Your task to perform on an android device: change notifications settings Image 0: 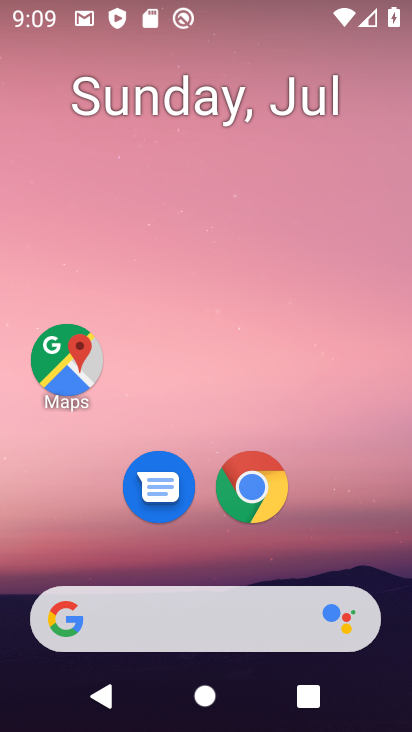
Step 0: drag from (179, 542) to (258, 4)
Your task to perform on an android device: change notifications settings Image 1: 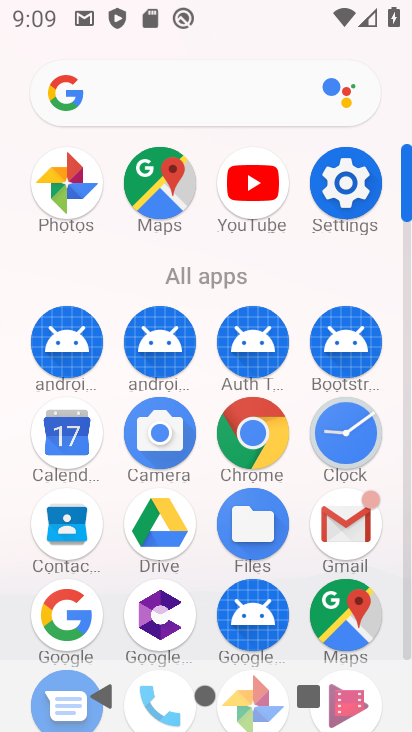
Step 1: click (347, 163)
Your task to perform on an android device: change notifications settings Image 2: 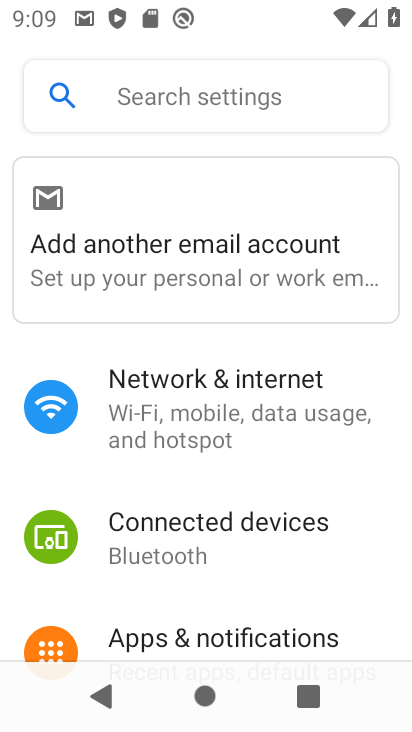
Step 2: drag from (240, 592) to (252, 213)
Your task to perform on an android device: change notifications settings Image 3: 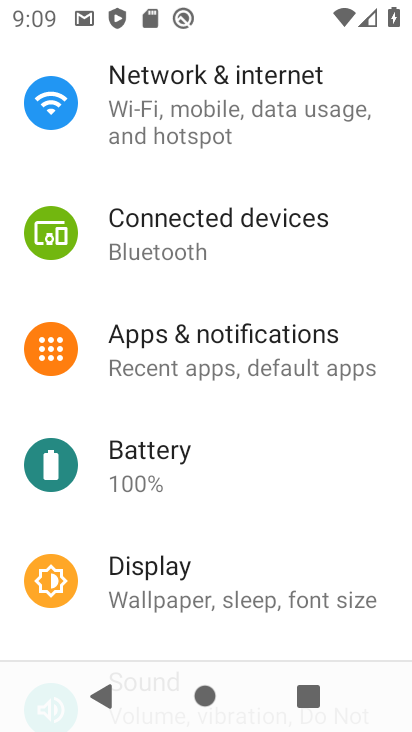
Step 3: click (254, 346)
Your task to perform on an android device: change notifications settings Image 4: 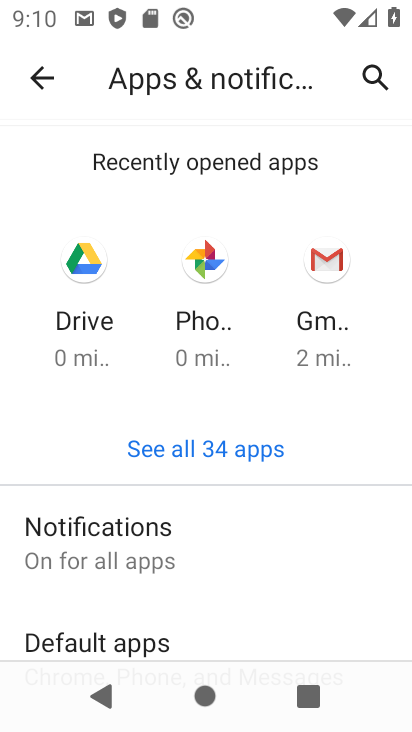
Step 4: click (137, 537)
Your task to perform on an android device: change notifications settings Image 5: 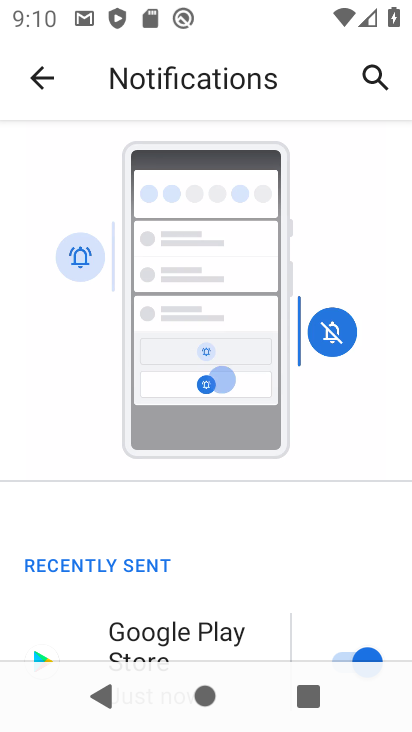
Step 5: drag from (175, 631) to (263, 104)
Your task to perform on an android device: change notifications settings Image 6: 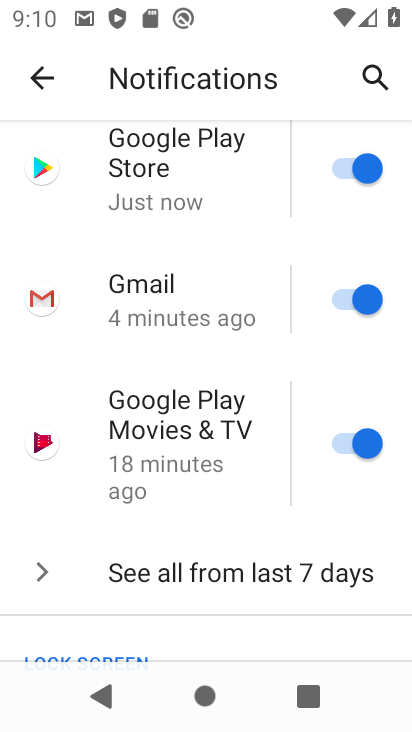
Step 6: drag from (215, 603) to (270, 22)
Your task to perform on an android device: change notifications settings Image 7: 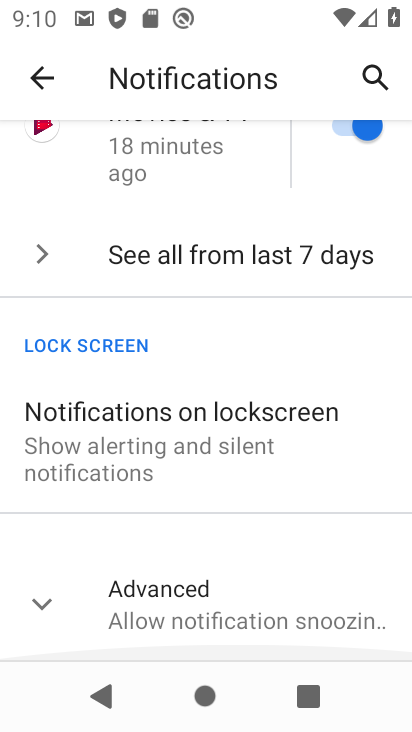
Step 7: click (205, 601)
Your task to perform on an android device: change notifications settings Image 8: 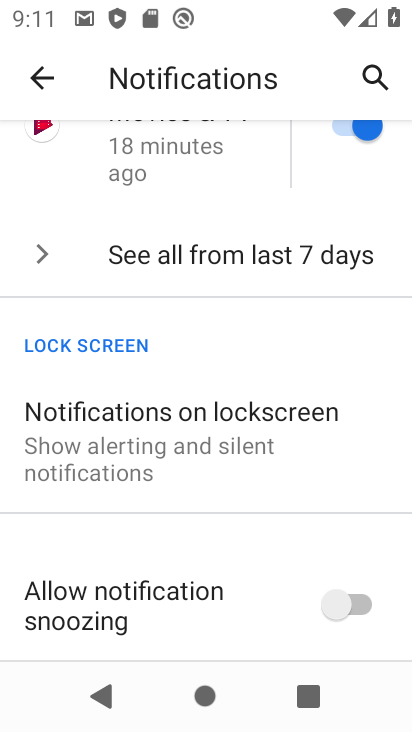
Step 8: click (324, 605)
Your task to perform on an android device: change notifications settings Image 9: 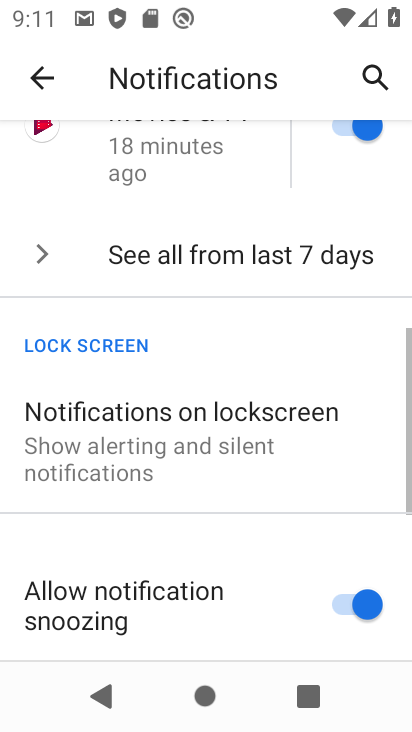
Step 9: task complete